Your task to perform on an android device: check storage Image 0: 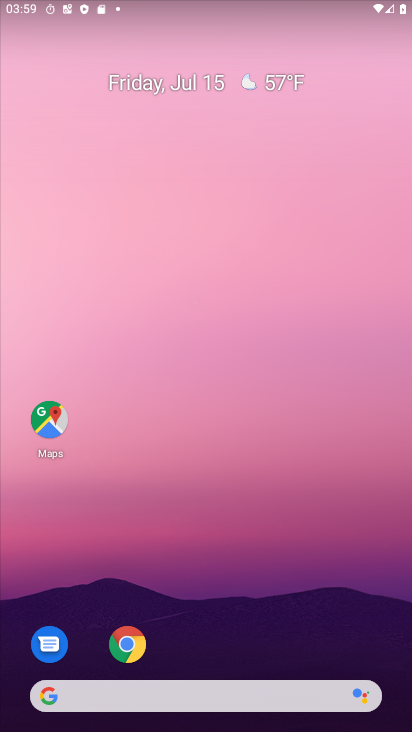
Step 0: drag from (305, 623) to (213, 3)
Your task to perform on an android device: check storage Image 1: 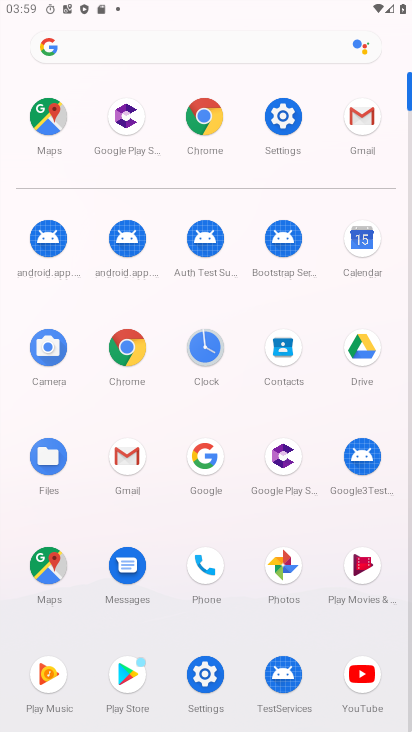
Step 1: click (284, 169)
Your task to perform on an android device: check storage Image 2: 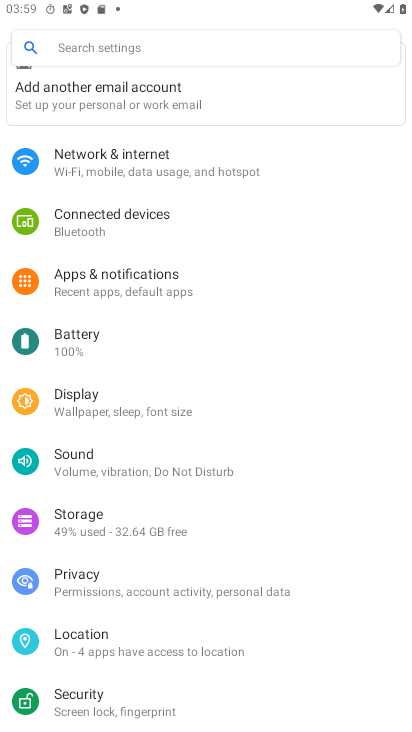
Step 2: click (172, 528)
Your task to perform on an android device: check storage Image 3: 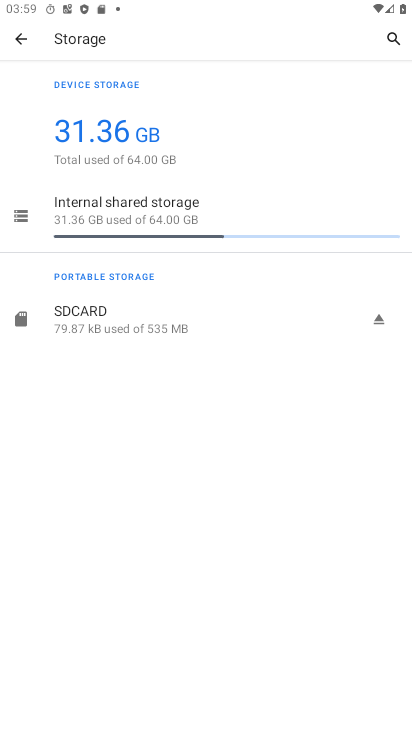
Step 3: task complete